Your task to perform on an android device: toggle data saver in the chrome app Image 0: 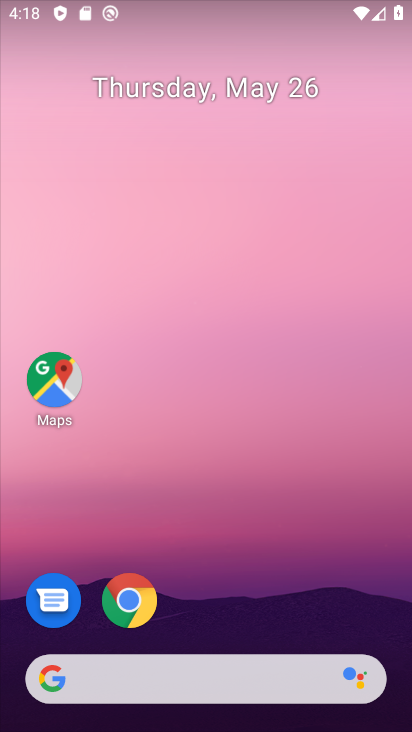
Step 0: click (136, 592)
Your task to perform on an android device: toggle data saver in the chrome app Image 1: 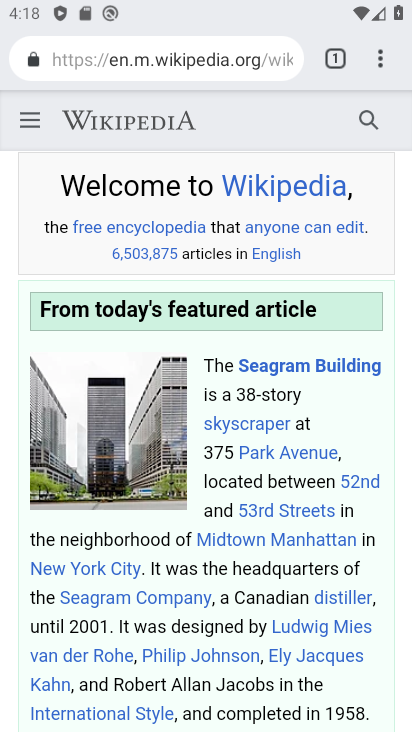
Step 1: click (391, 64)
Your task to perform on an android device: toggle data saver in the chrome app Image 2: 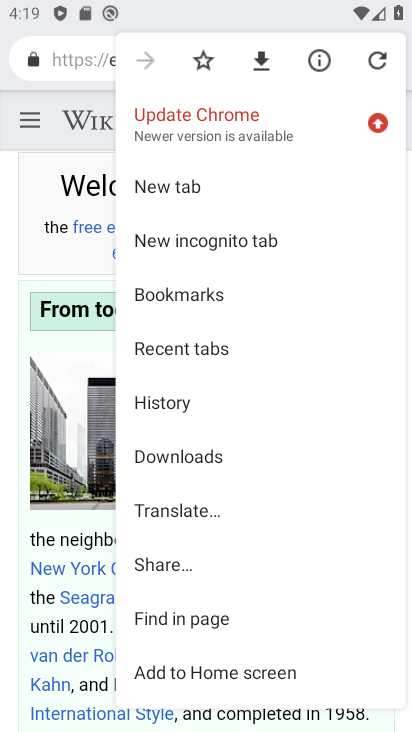
Step 2: drag from (246, 606) to (248, 384)
Your task to perform on an android device: toggle data saver in the chrome app Image 3: 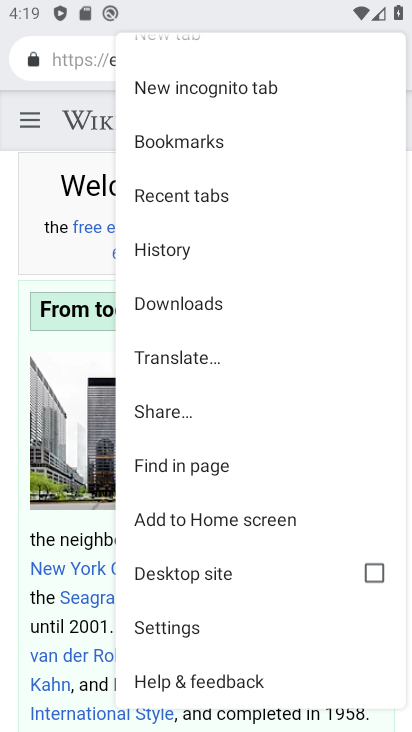
Step 3: click (169, 637)
Your task to perform on an android device: toggle data saver in the chrome app Image 4: 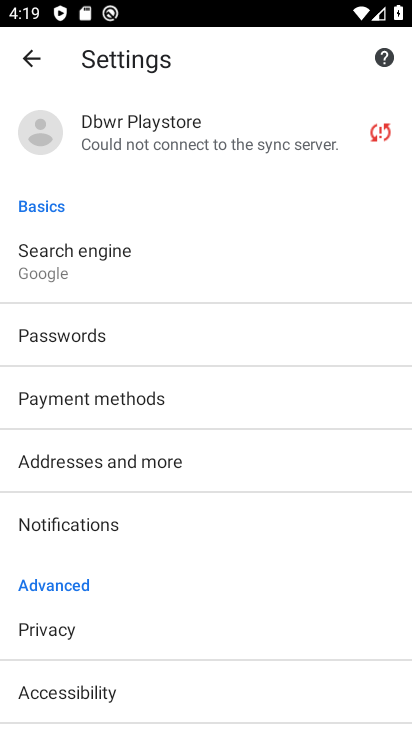
Step 4: drag from (150, 482) to (159, 248)
Your task to perform on an android device: toggle data saver in the chrome app Image 5: 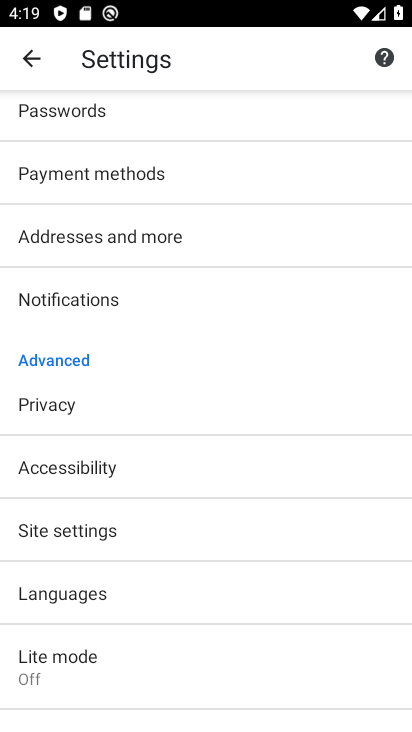
Step 5: click (132, 639)
Your task to perform on an android device: toggle data saver in the chrome app Image 6: 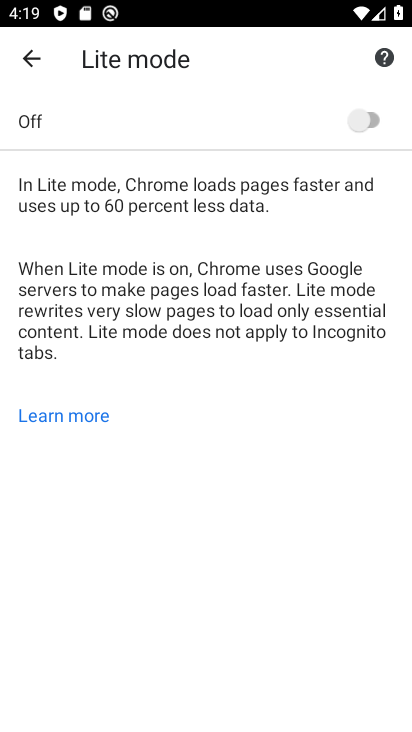
Step 6: click (362, 113)
Your task to perform on an android device: toggle data saver in the chrome app Image 7: 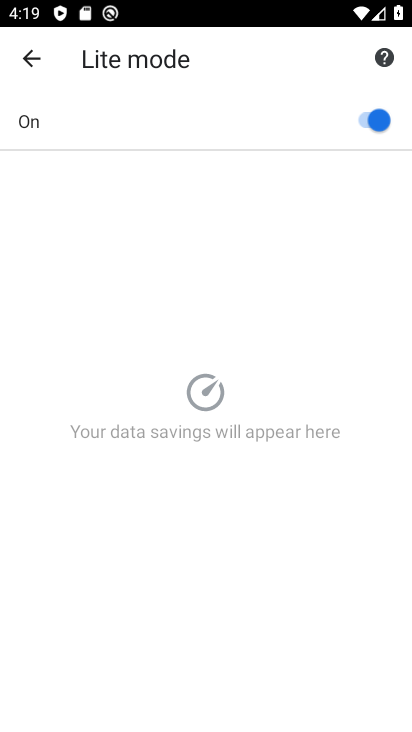
Step 7: task complete